Your task to perform on an android device: turn vacation reply on in the gmail app Image 0: 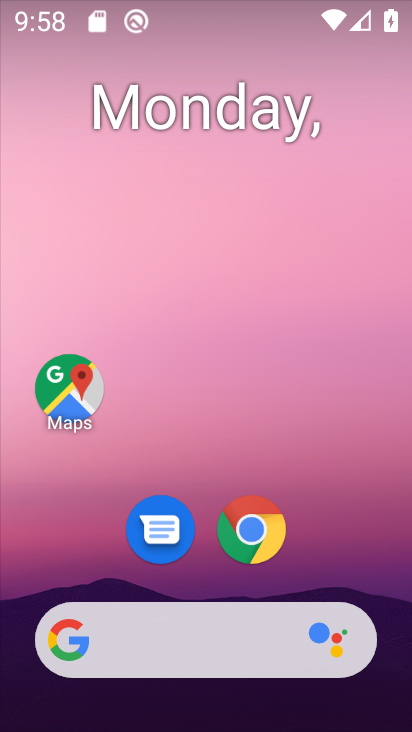
Step 0: drag from (205, 396) to (239, 108)
Your task to perform on an android device: turn vacation reply on in the gmail app Image 1: 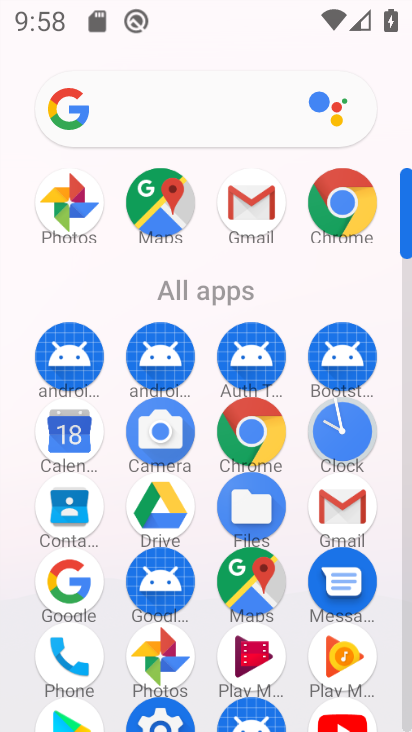
Step 1: click (348, 535)
Your task to perform on an android device: turn vacation reply on in the gmail app Image 2: 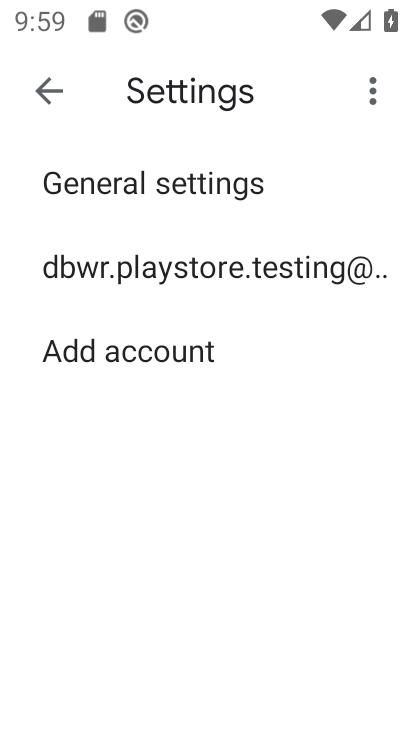
Step 2: click (193, 279)
Your task to perform on an android device: turn vacation reply on in the gmail app Image 3: 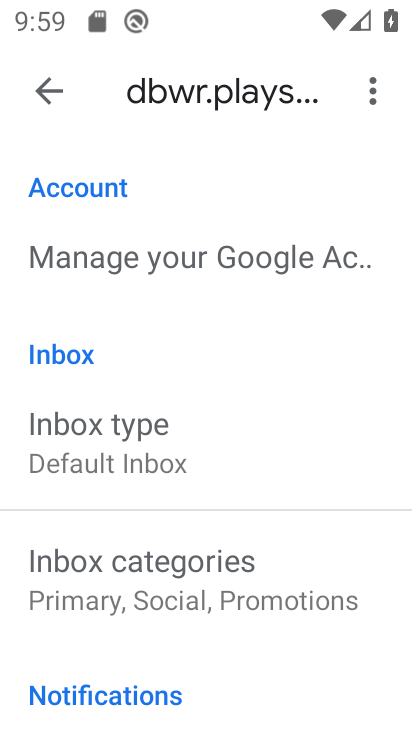
Step 3: drag from (180, 642) to (246, 284)
Your task to perform on an android device: turn vacation reply on in the gmail app Image 4: 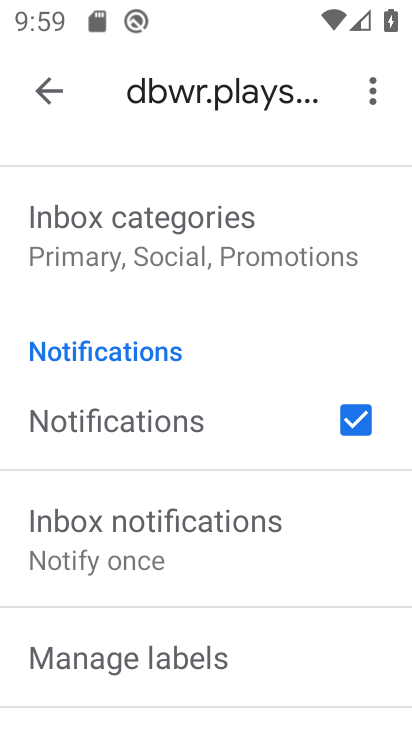
Step 4: drag from (218, 556) to (311, 137)
Your task to perform on an android device: turn vacation reply on in the gmail app Image 5: 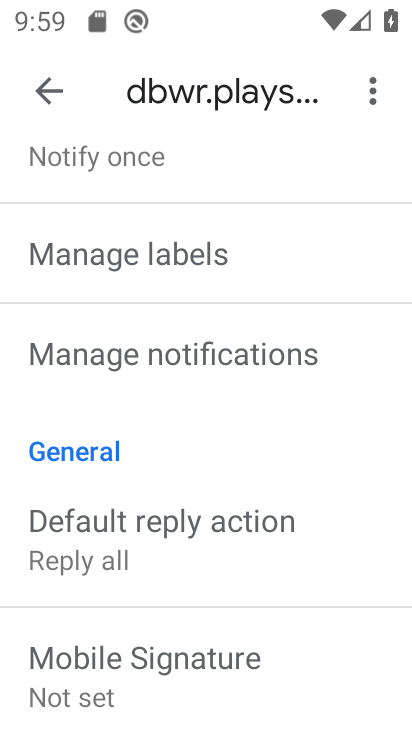
Step 5: drag from (198, 508) to (243, 260)
Your task to perform on an android device: turn vacation reply on in the gmail app Image 6: 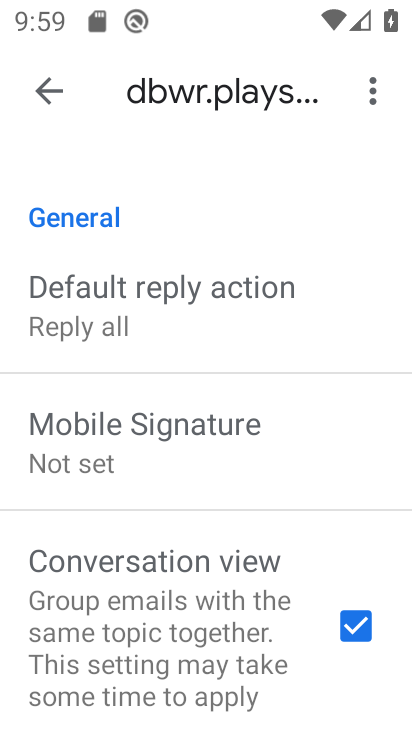
Step 6: drag from (172, 542) to (234, 262)
Your task to perform on an android device: turn vacation reply on in the gmail app Image 7: 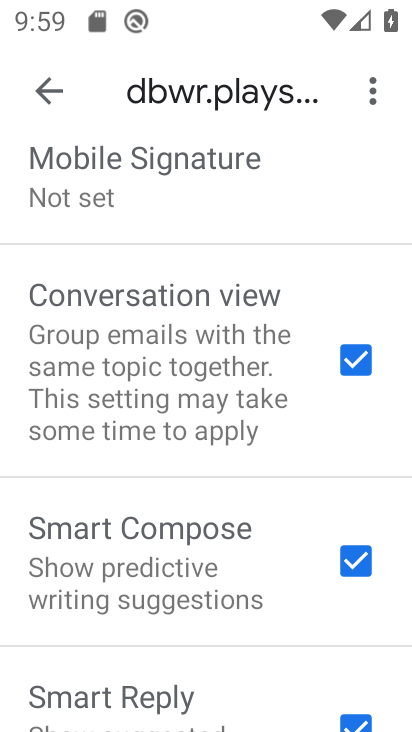
Step 7: drag from (178, 582) to (254, 232)
Your task to perform on an android device: turn vacation reply on in the gmail app Image 8: 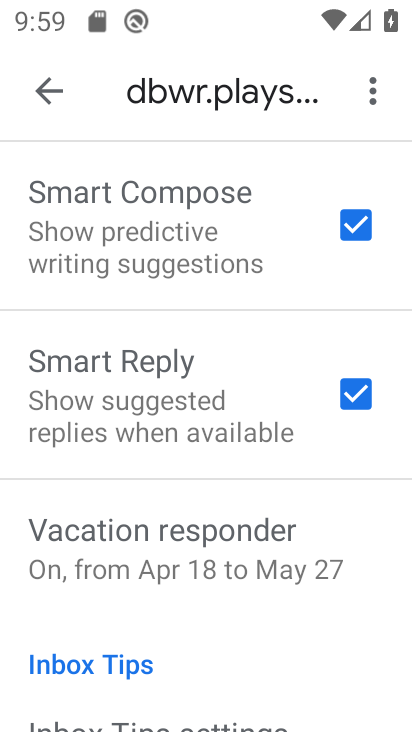
Step 8: click (211, 554)
Your task to perform on an android device: turn vacation reply on in the gmail app Image 9: 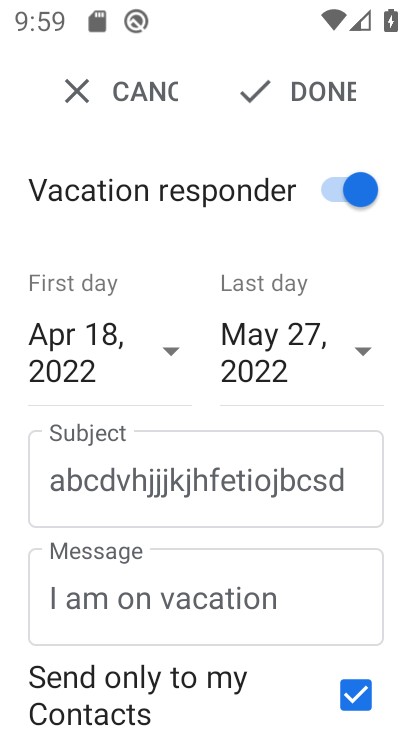
Step 9: task complete